Your task to perform on an android device: turn off wifi Image 0: 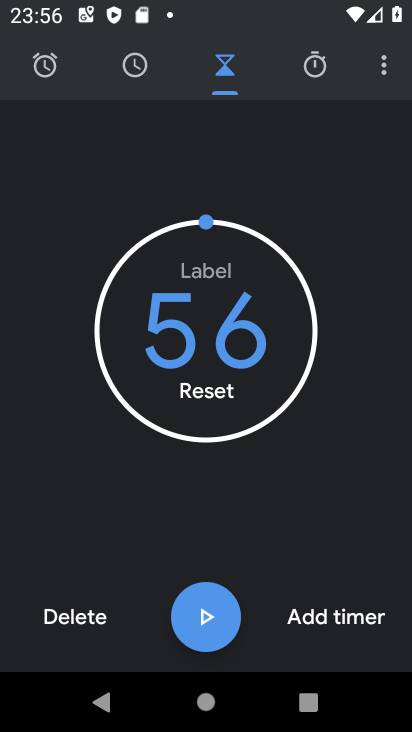
Step 0: press home button
Your task to perform on an android device: turn off wifi Image 1: 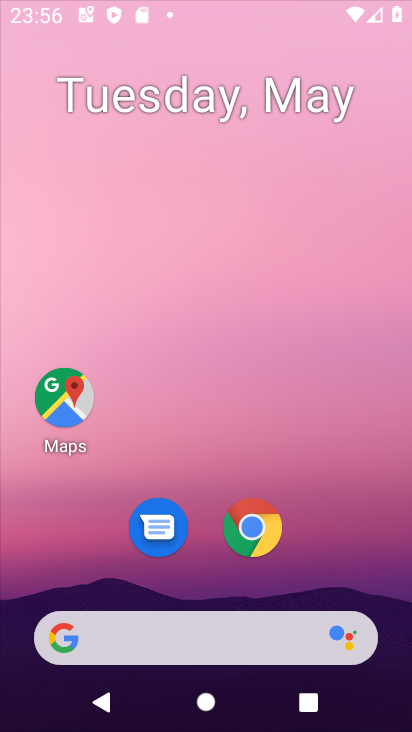
Step 1: drag from (157, 521) to (211, 162)
Your task to perform on an android device: turn off wifi Image 2: 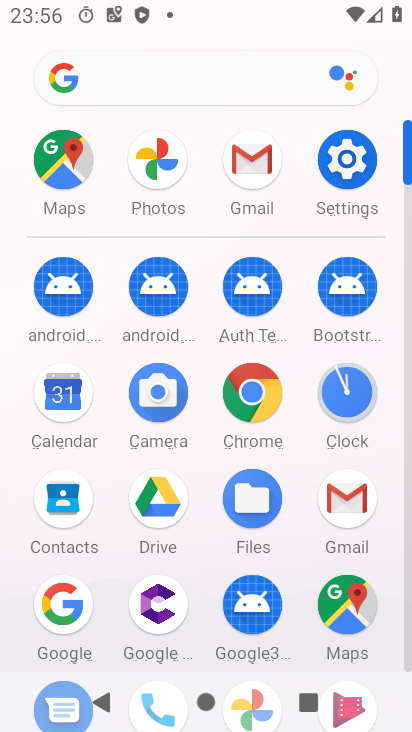
Step 2: click (347, 151)
Your task to perform on an android device: turn off wifi Image 3: 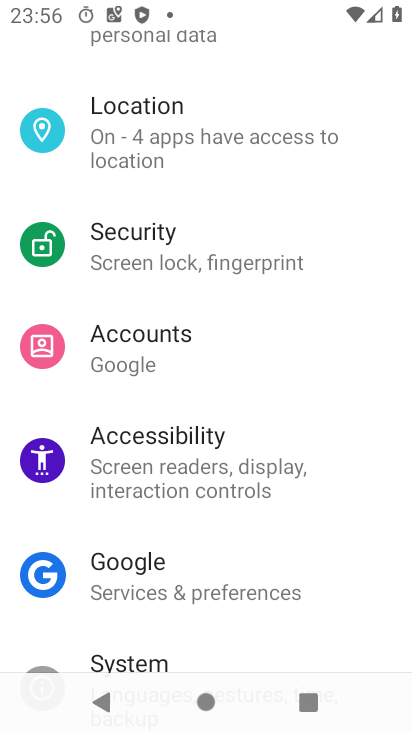
Step 3: drag from (183, 124) to (345, 724)
Your task to perform on an android device: turn off wifi Image 4: 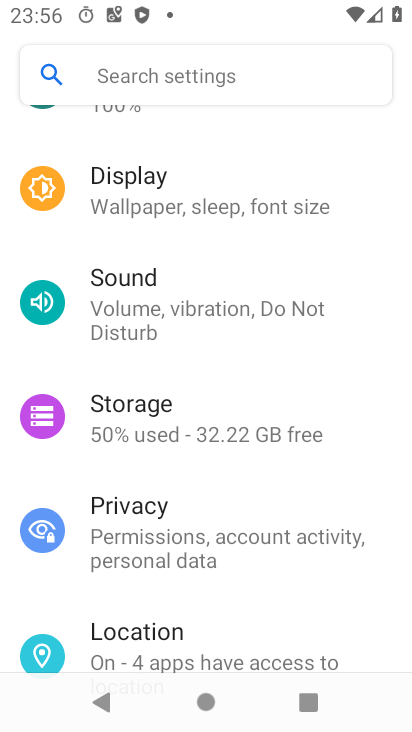
Step 4: drag from (173, 200) to (260, 721)
Your task to perform on an android device: turn off wifi Image 5: 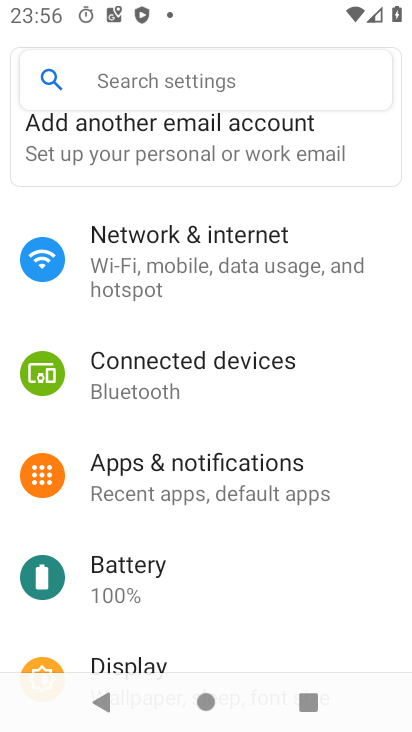
Step 5: click (184, 255)
Your task to perform on an android device: turn off wifi Image 6: 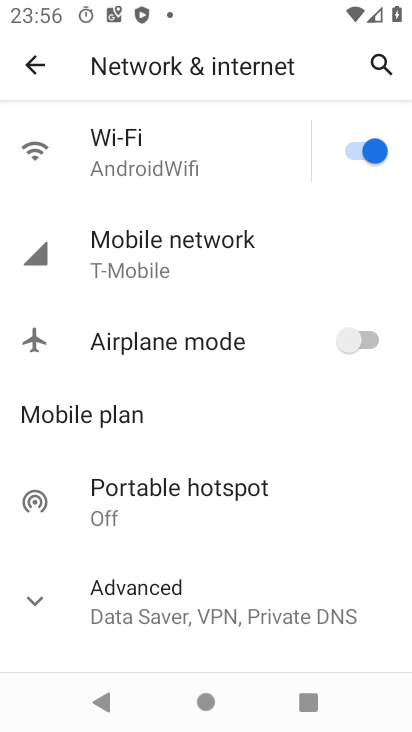
Step 6: click (221, 148)
Your task to perform on an android device: turn off wifi Image 7: 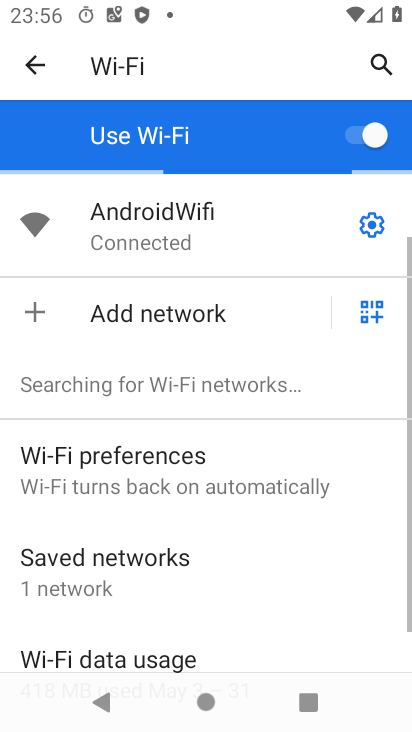
Step 7: drag from (199, 503) to (264, 163)
Your task to perform on an android device: turn off wifi Image 8: 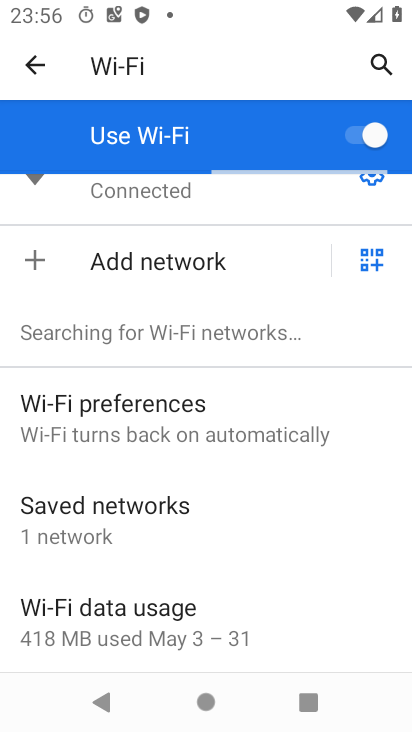
Step 8: drag from (206, 260) to (255, 663)
Your task to perform on an android device: turn off wifi Image 9: 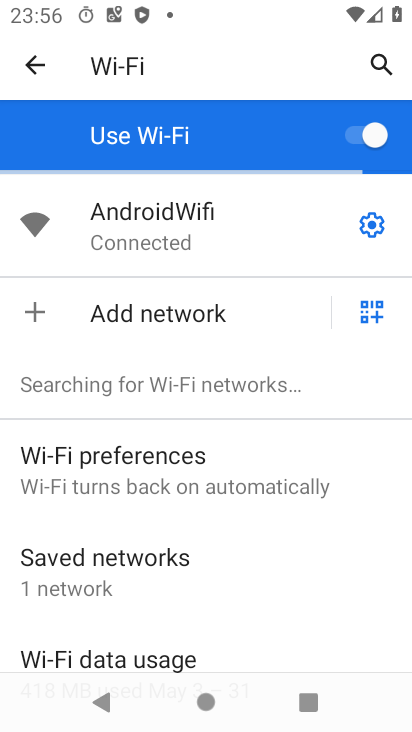
Step 9: click (362, 129)
Your task to perform on an android device: turn off wifi Image 10: 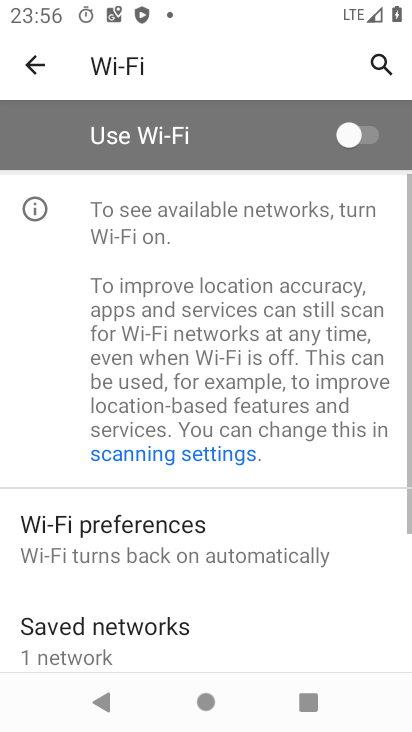
Step 10: task complete